Your task to perform on an android device: Turn off the flashlight Image 0: 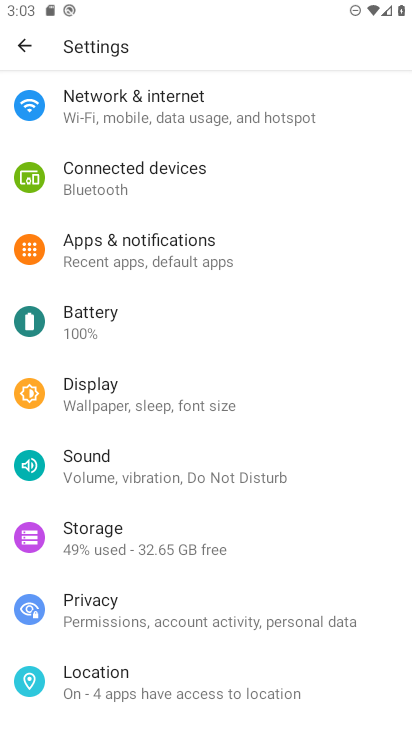
Step 0: press home button
Your task to perform on an android device: Turn off the flashlight Image 1: 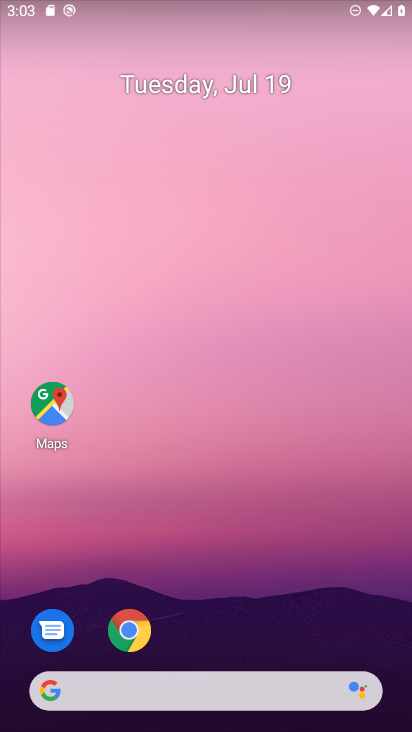
Step 1: drag from (223, 13) to (182, 423)
Your task to perform on an android device: Turn off the flashlight Image 2: 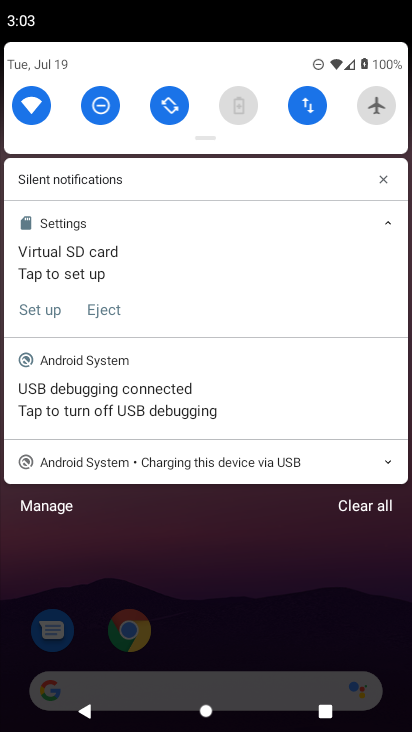
Step 2: drag from (206, 141) to (189, 468)
Your task to perform on an android device: Turn off the flashlight Image 3: 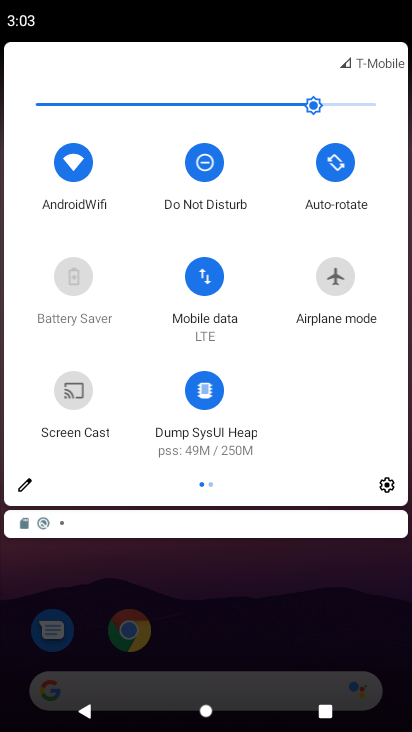
Step 3: click (25, 484)
Your task to perform on an android device: Turn off the flashlight Image 4: 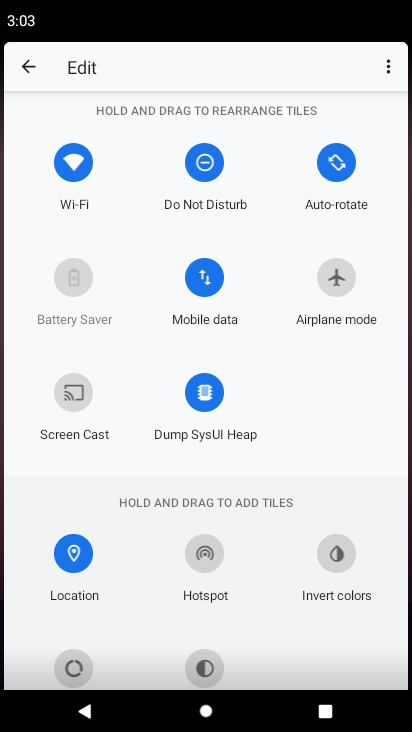
Step 4: task complete